Your task to perform on an android device: Go to display settings Image 0: 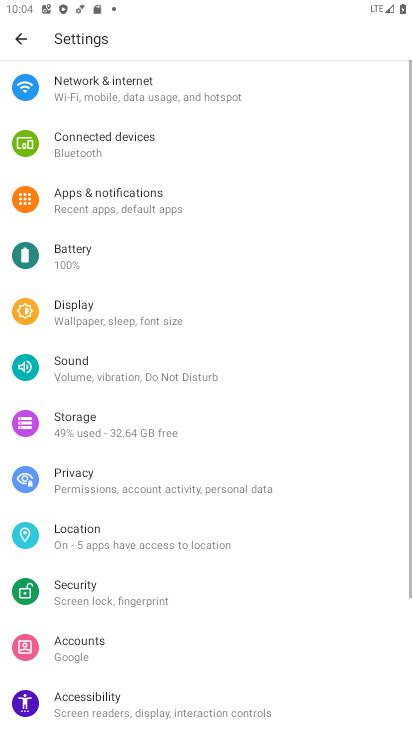
Step 0: press home button
Your task to perform on an android device: Go to display settings Image 1: 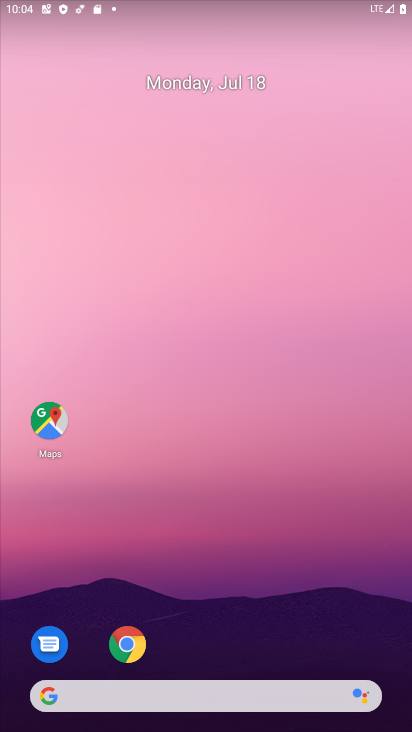
Step 1: drag from (357, 603) to (369, 175)
Your task to perform on an android device: Go to display settings Image 2: 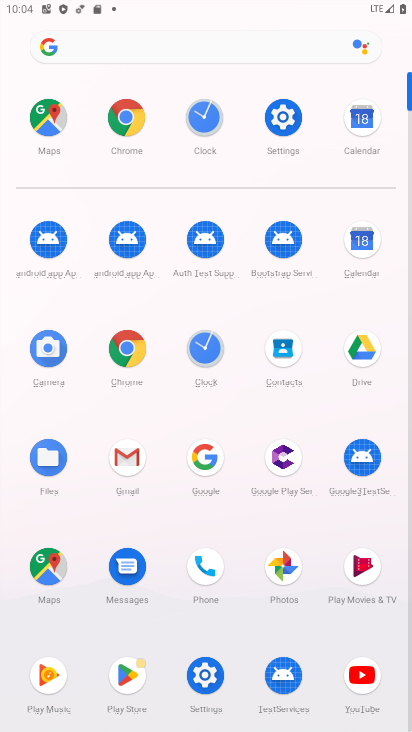
Step 2: click (280, 119)
Your task to perform on an android device: Go to display settings Image 3: 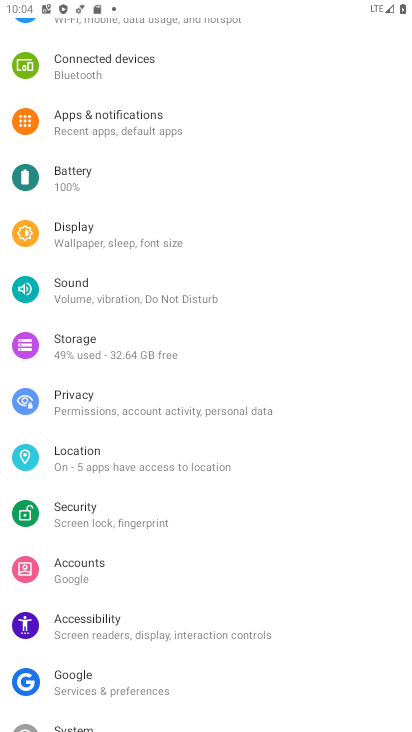
Step 3: drag from (331, 261) to (324, 350)
Your task to perform on an android device: Go to display settings Image 4: 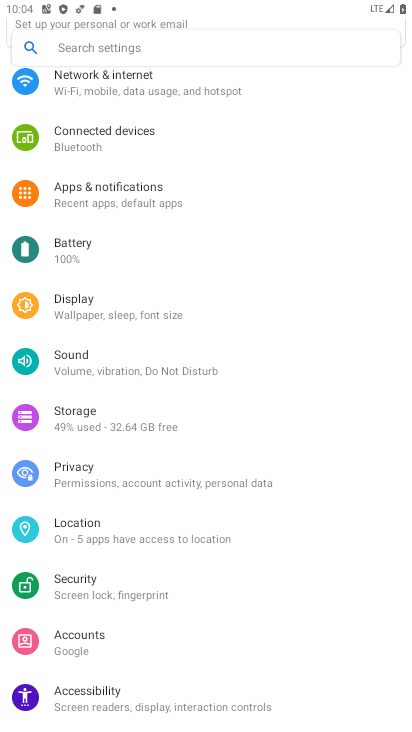
Step 4: drag from (335, 259) to (331, 362)
Your task to perform on an android device: Go to display settings Image 5: 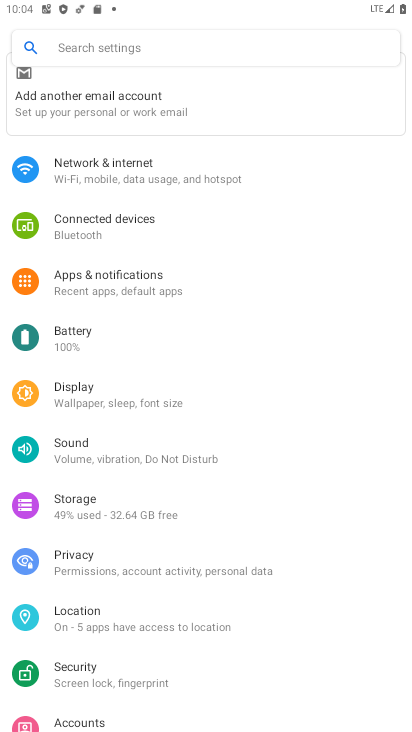
Step 5: drag from (333, 278) to (339, 387)
Your task to perform on an android device: Go to display settings Image 6: 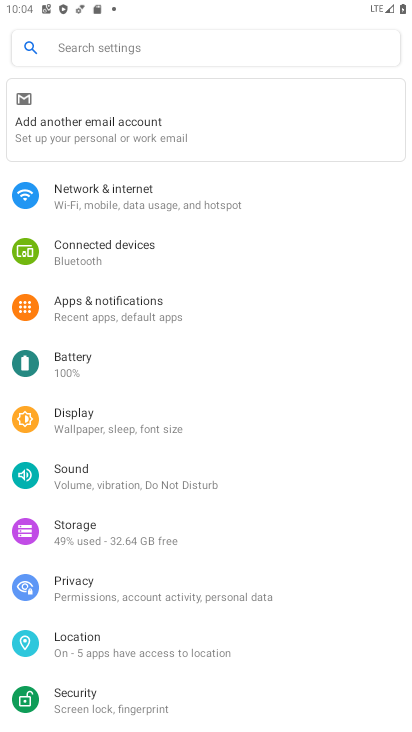
Step 6: drag from (334, 494) to (332, 425)
Your task to perform on an android device: Go to display settings Image 7: 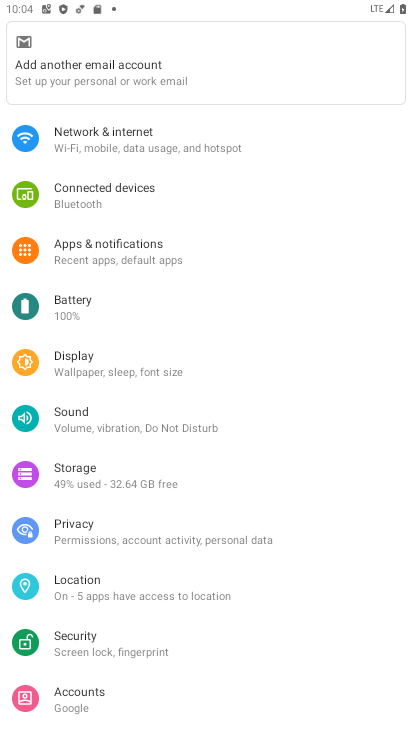
Step 7: drag from (320, 483) to (318, 416)
Your task to perform on an android device: Go to display settings Image 8: 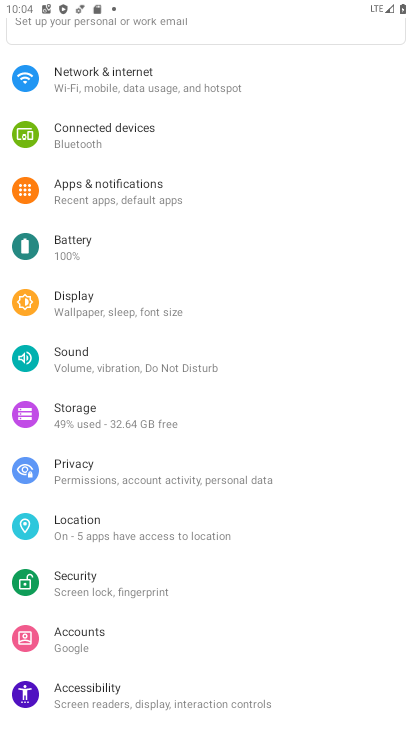
Step 8: drag from (315, 496) to (318, 438)
Your task to perform on an android device: Go to display settings Image 9: 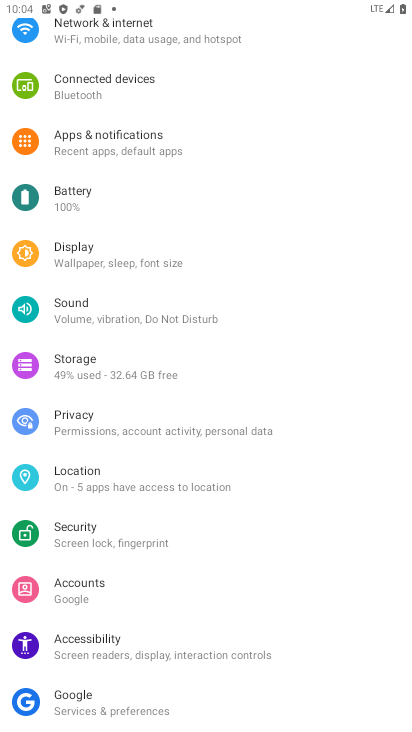
Step 9: drag from (310, 569) to (317, 483)
Your task to perform on an android device: Go to display settings Image 10: 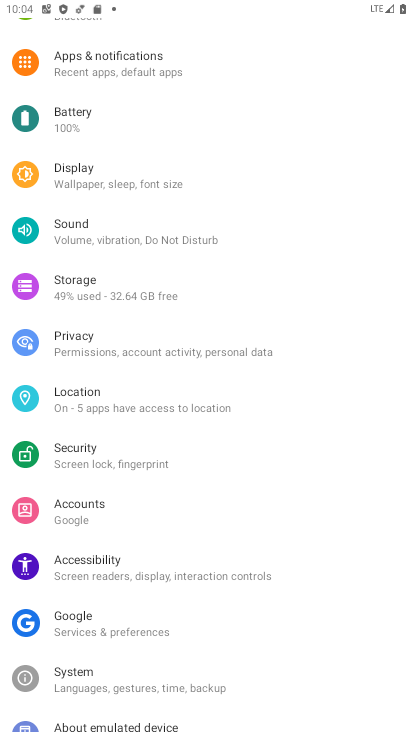
Step 10: drag from (323, 414) to (325, 476)
Your task to perform on an android device: Go to display settings Image 11: 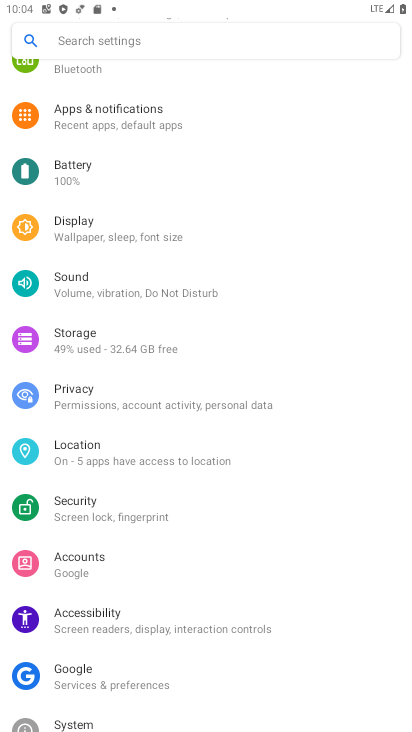
Step 11: drag from (319, 354) to (318, 437)
Your task to perform on an android device: Go to display settings Image 12: 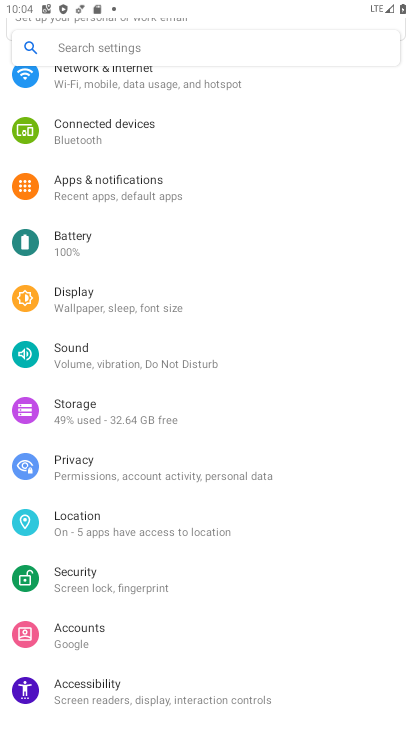
Step 12: drag from (303, 338) to (304, 423)
Your task to perform on an android device: Go to display settings Image 13: 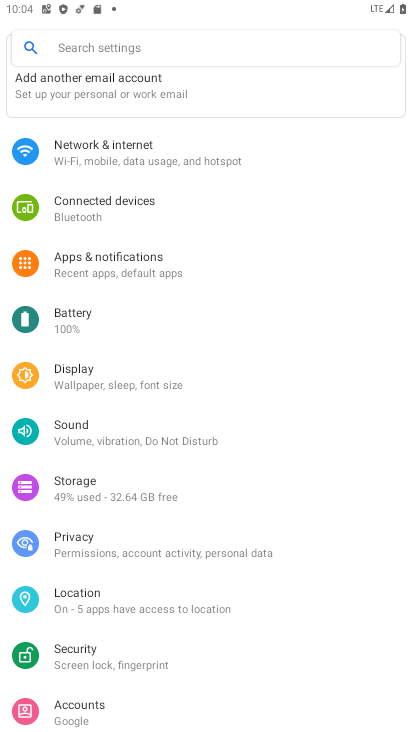
Step 13: click (211, 386)
Your task to perform on an android device: Go to display settings Image 14: 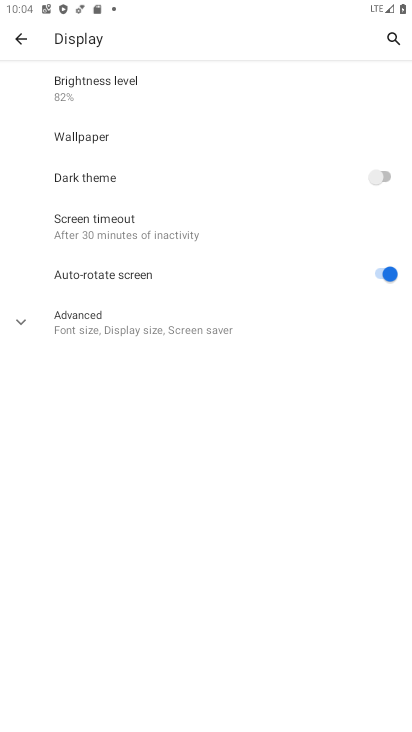
Step 14: click (185, 336)
Your task to perform on an android device: Go to display settings Image 15: 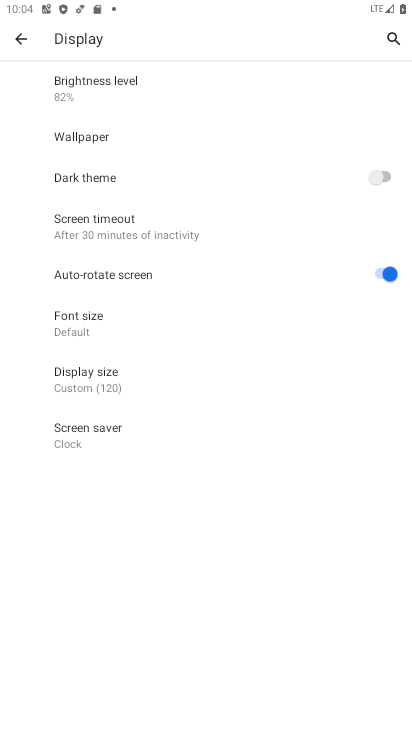
Step 15: task complete